Your task to perform on an android device: toggle javascript in the chrome app Image 0: 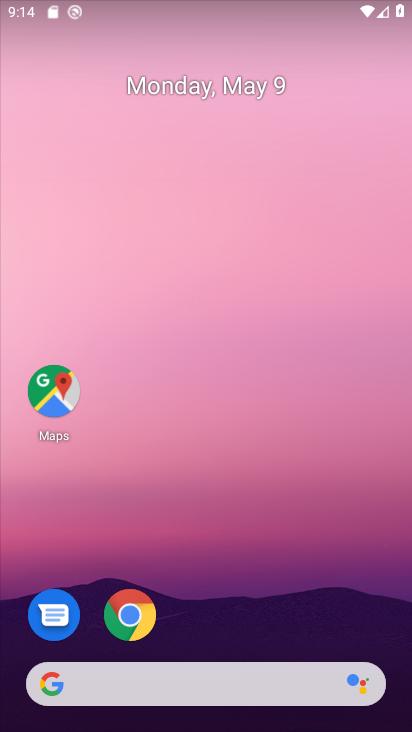
Step 0: drag from (317, 688) to (239, 284)
Your task to perform on an android device: toggle javascript in the chrome app Image 1: 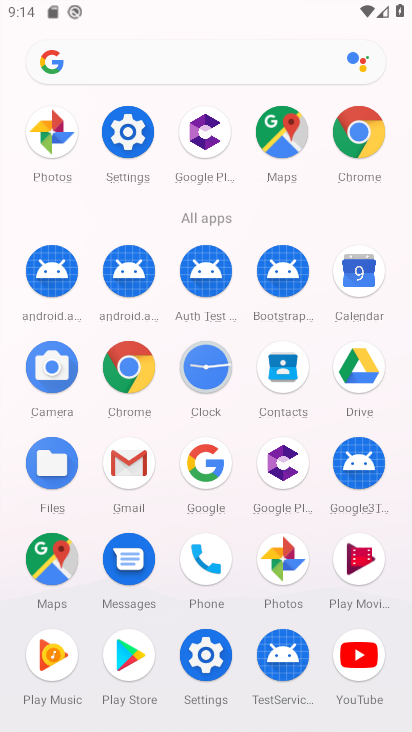
Step 1: click (356, 147)
Your task to perform on an android device: toggle javascript in the chrome app Image 2: 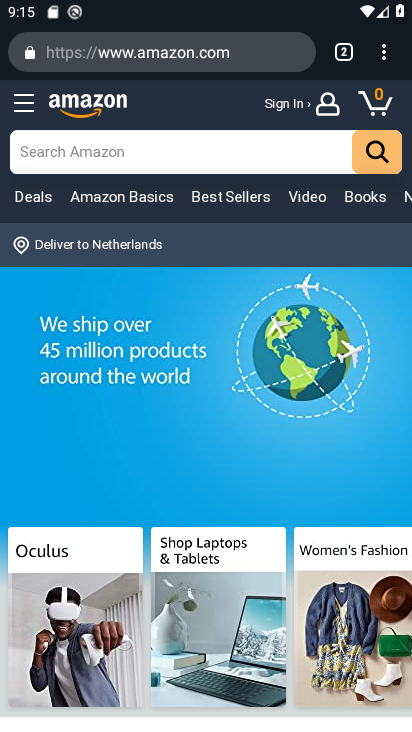
Step 2: click (372, 56)
Your task to perform on an android device: toggle javascript in the chrome app Image 3: 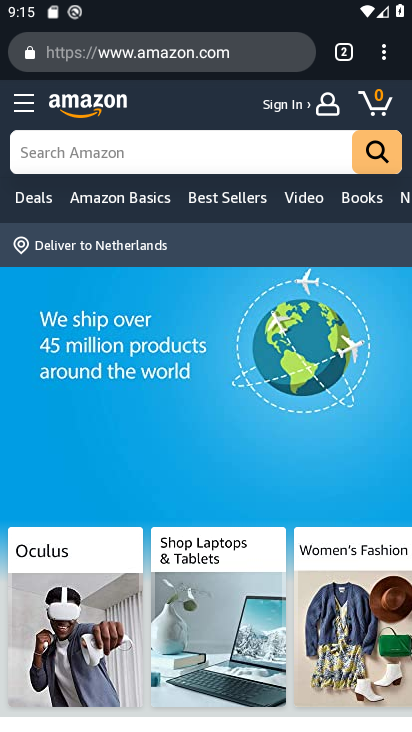
Step 3: click (368, 70)
Your task to perform on an android device: toggle javascript in the chrome app Image 4: 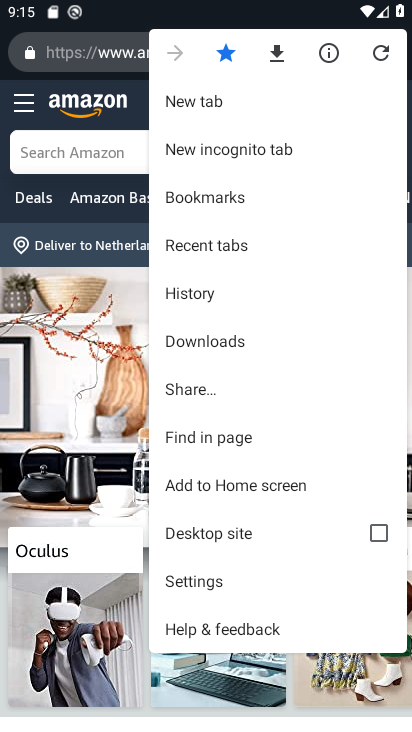
Step 4: click (246, 553)
Your task to perform on an android device: toggle javascript in the chrome app Image 5: 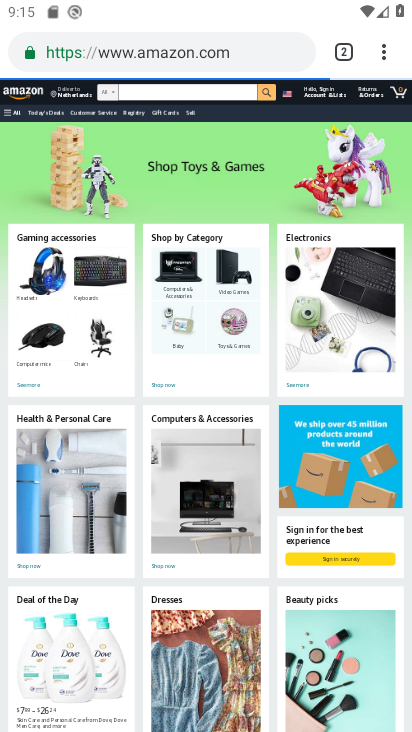
Step 5: click (381, 64)
Your task to perform on an android device: toggle javascript in the chrome app Image 6: 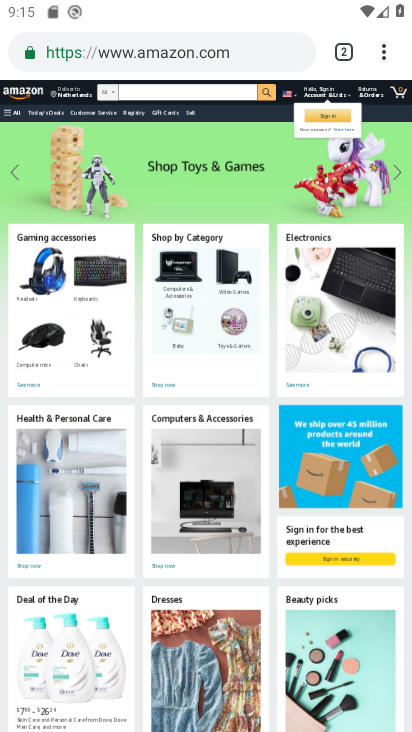
Step 6: click (377, 66)
Your task to perform on an android device: toggle javascript in the chrome app Image 7: 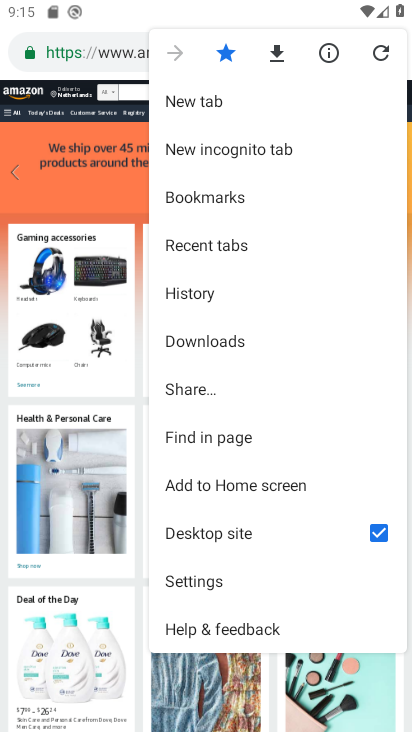
Step 7: click (224, 578)
Your task to perform on an android device: toggle javascript in the chrome app Image 8: 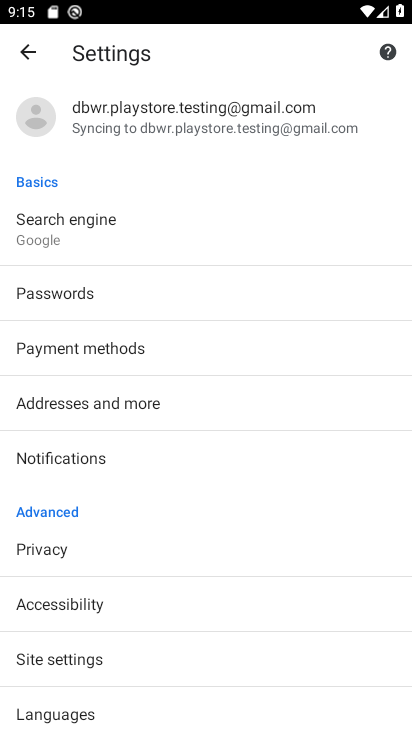
Step 8: click (132, 660)
Your task to perform on an android device: toggle javascript in the chrome app Image 9: 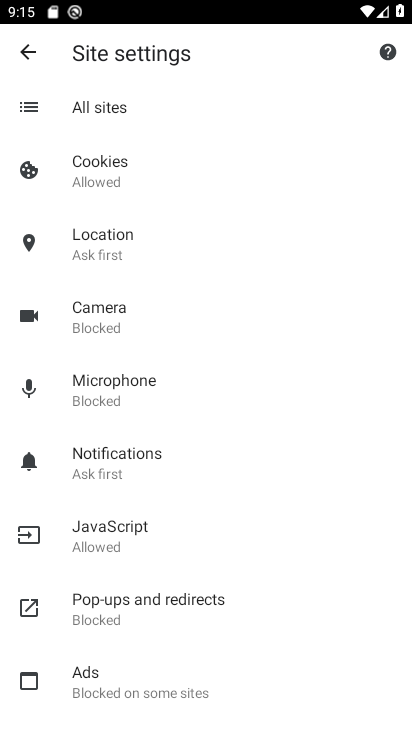
Step 9: click (125, 542)
Your task to perform on an android device: toggle javascript in the chrome app Image 10: 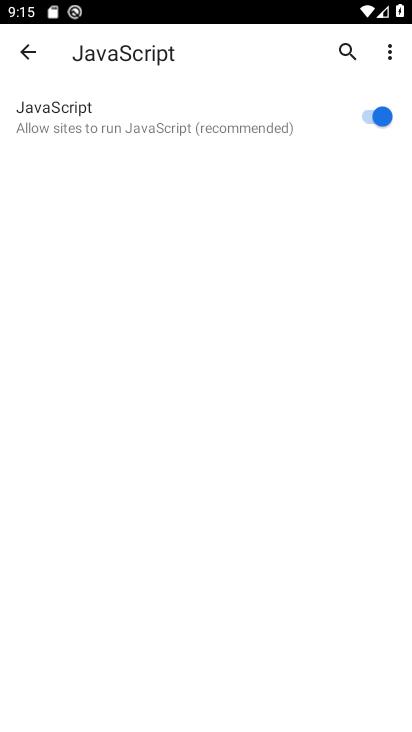
Step 10: task complete